Your task to perform on an android device: open the mobile data screen to see how much data has been used Image 0: 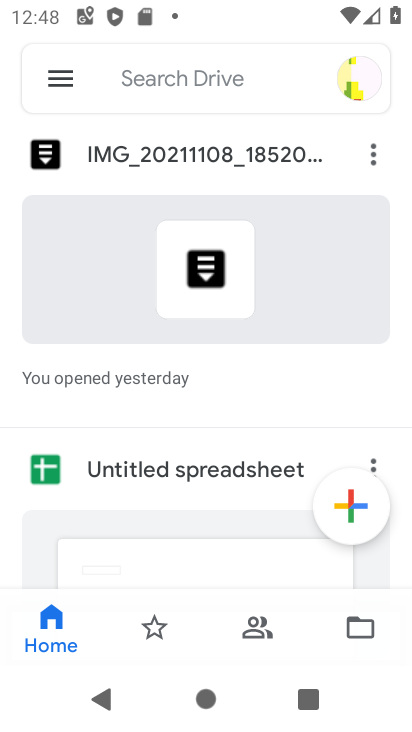
Step 0: press home button
Your task to perform on an android device: open the mobile data screen to see how much data has been used Image 1: 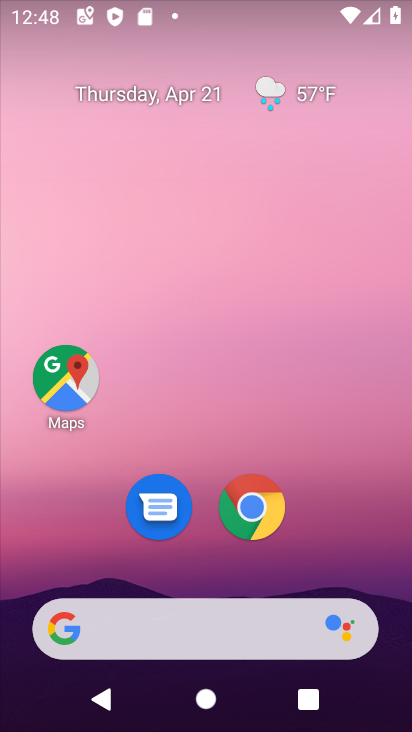
Step 1: drag from (327, 517) to (351, 30)
Your task to perform on an android device: open the mobile data screen to see how much data has been used Image 2: 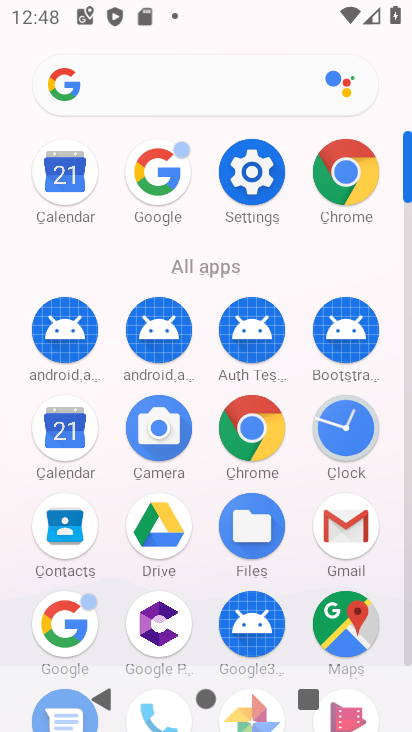
Step 2: click (250, 177)
Your task to perform on an android device: open the mobile data screen to see how much data has been used Image 3: 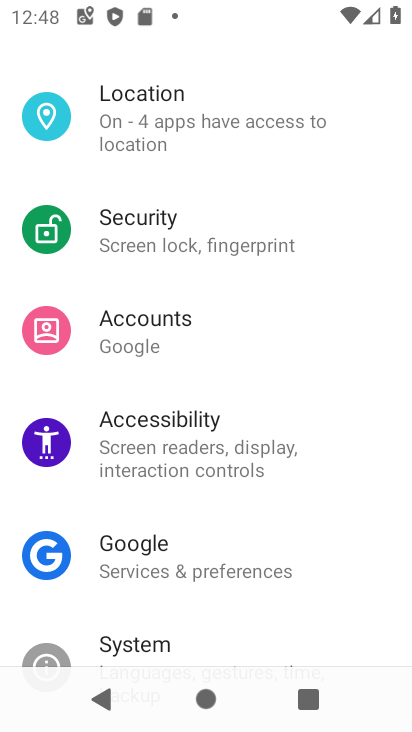
Step 3: drag from (250, 177) to (269, 324)
Your task to perform on an android device: open the mobile data screen to see how much data has been used Image 4: 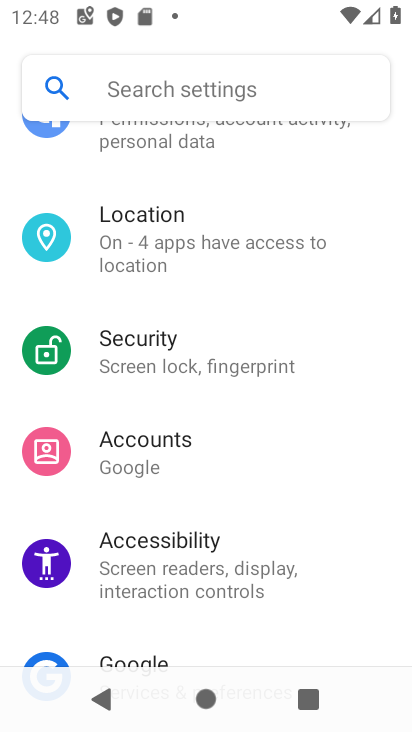
Step 4: drag from (234, 195) to (240, 377)
Your task to perform on an android device: open the mobile data screen to see how much data has been used Image 5: 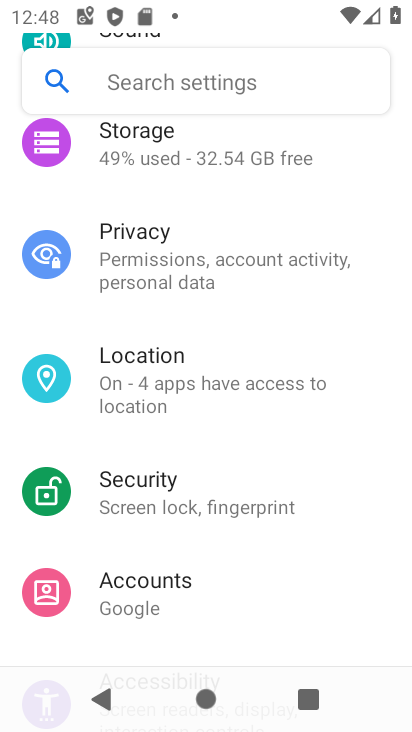
Step 5: drag from (240, 211) to (251, 377)
Your task to perform on an android device: open the mobile data screen to see how much data has been used Image 6: 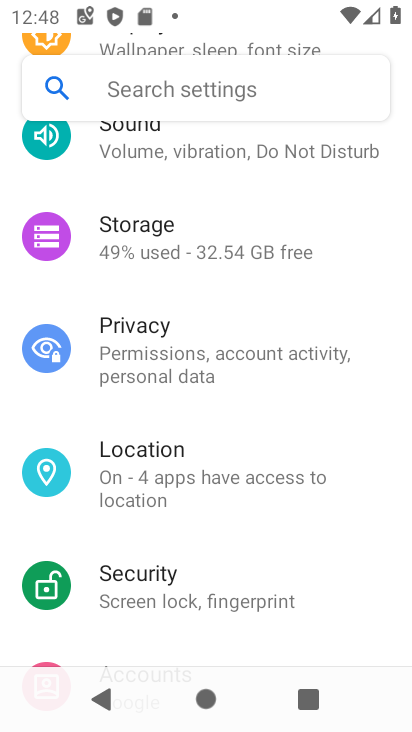
Step 6: drag from (237, 207) to (229, 330)
Your task to perform on an android device: open the mobile data screen to see how much data has been used Image 7: 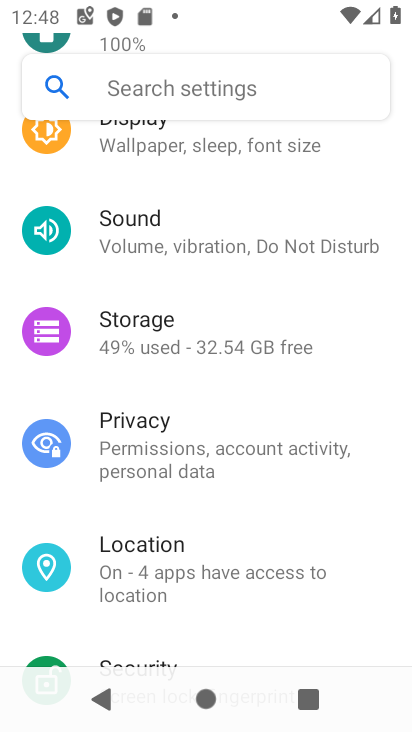
Step 7: drag from (232, 210) to (231, 334)
Your task to perform on an android device: open the mobile data screen to see how much data has been used Image 8: 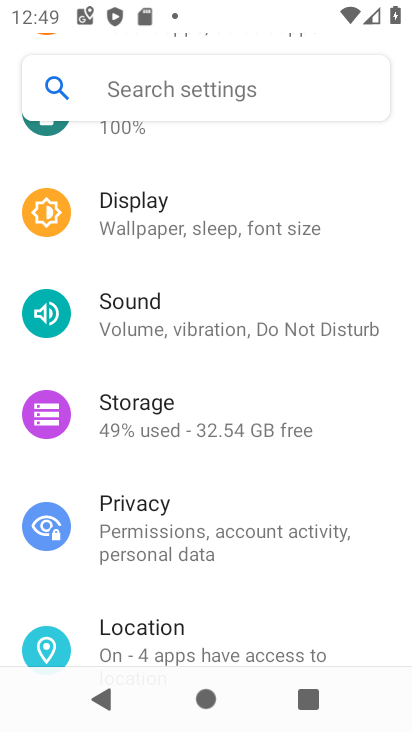
Step 8: drag from (215, 191) to (187, 315)
Your task to perform on an android device: open the mobile data screen to see how much data has been used Image 9: 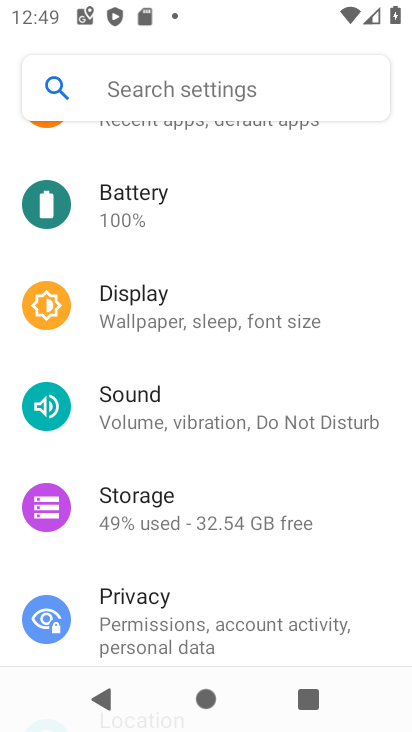
Step 9: drag from (190, 186) to (189, 323)
Your task to perform on an android device: open the mobile data screen to see how much data has been used Image 10: 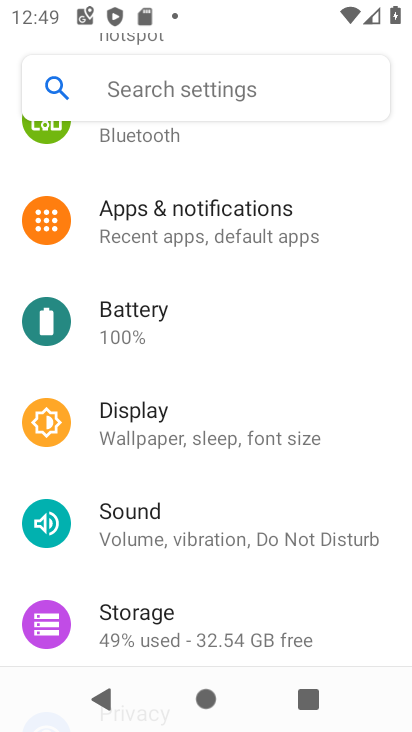
Step 10: drag from (226, 161) to (235, 338)
Your task to perform on an android device: open the mobile data screen to see how much data has been used Image 11: 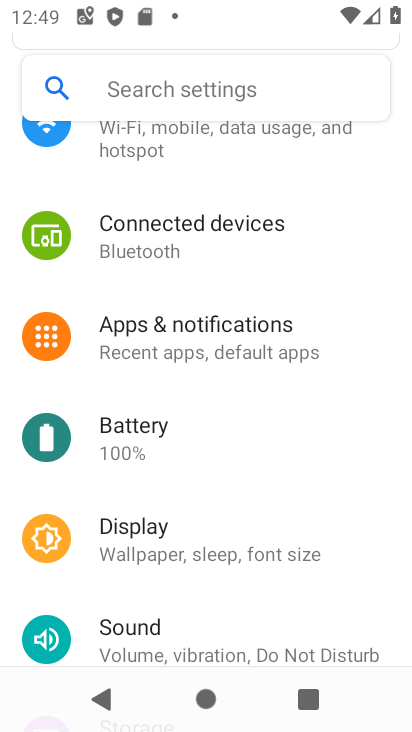
Step 11: drag from (232, 177) to (240, 336)
Your task to perform on an android device: open the mobile data screen to see how much data has been used Image 12: 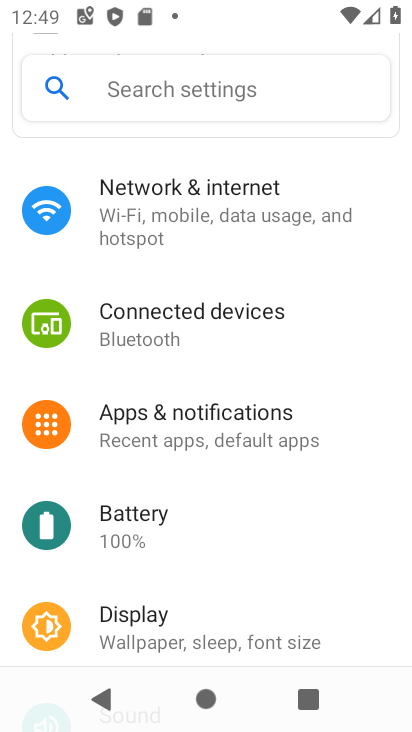
Step 12: click (220, 199)
Your task to perform on an android device: open the mobile data screen to see how much data has been used Image 13: 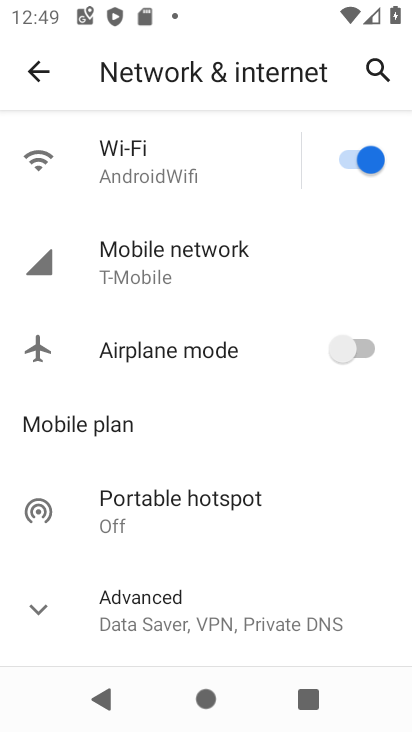
Step 13: click (205, 258)
Your task to perform on an android device: open the mobile data screen to see how much data has been used Image 14: 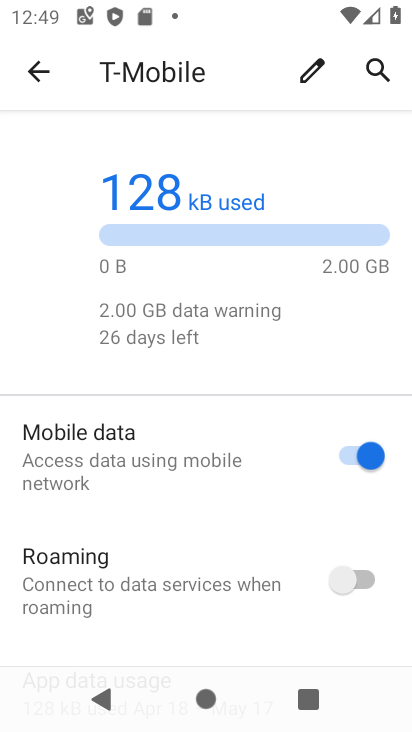
Step 14: task complete